Your task to perform on an android device: Search for the new nike air max 270 on Nike.com Image 0: 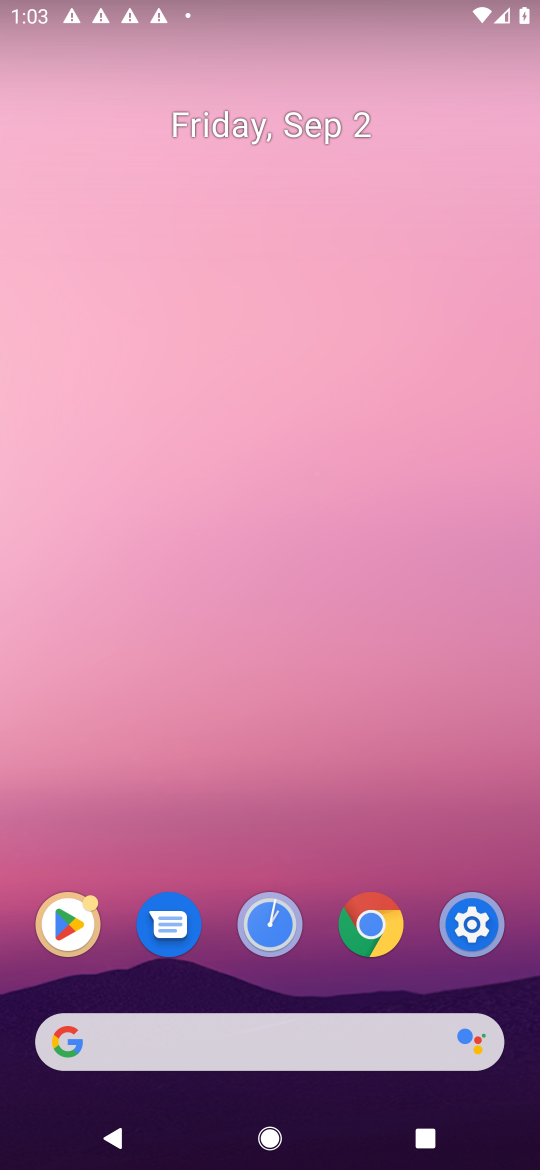
Step 0: click (306, 1043)
Your task to perform on an android device: Search for the new nike air max 270 on Nike.com Image 1: 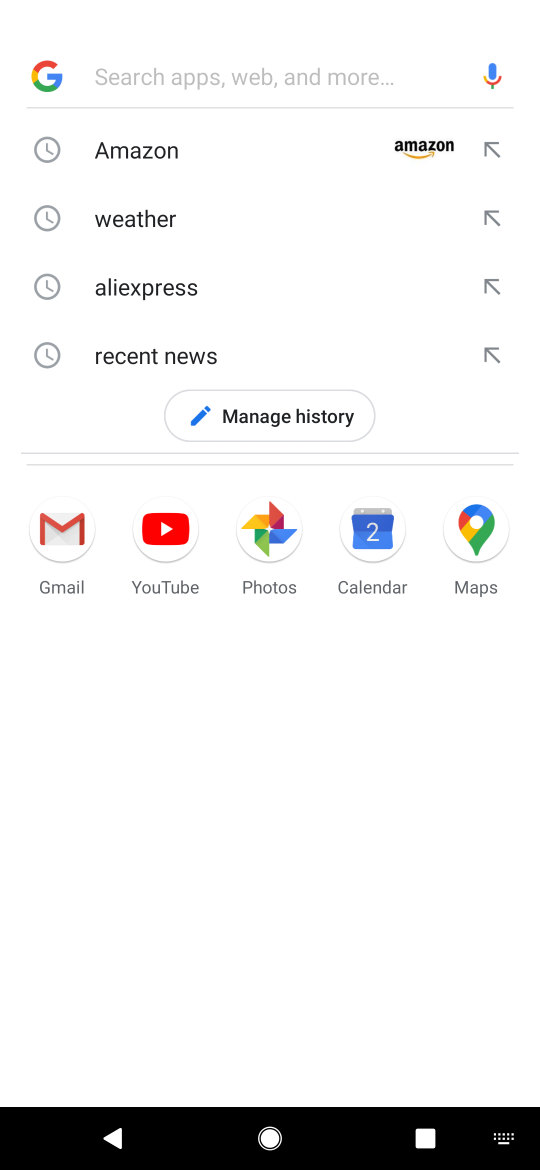
Step 1: type "Nike.com"
Your task to perform on an android device: Search for the new nike air max 270 on Nike.com Image 2: 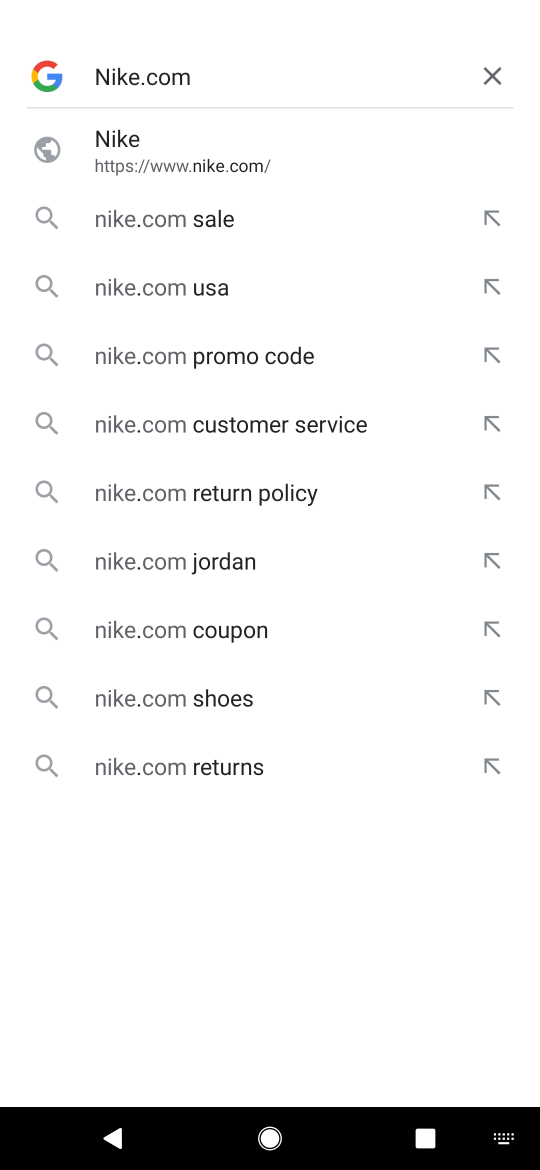
Step 2: type ""
Your task to perform on an android device: Search for the new nike air max 270 on Nike.com Image 3: 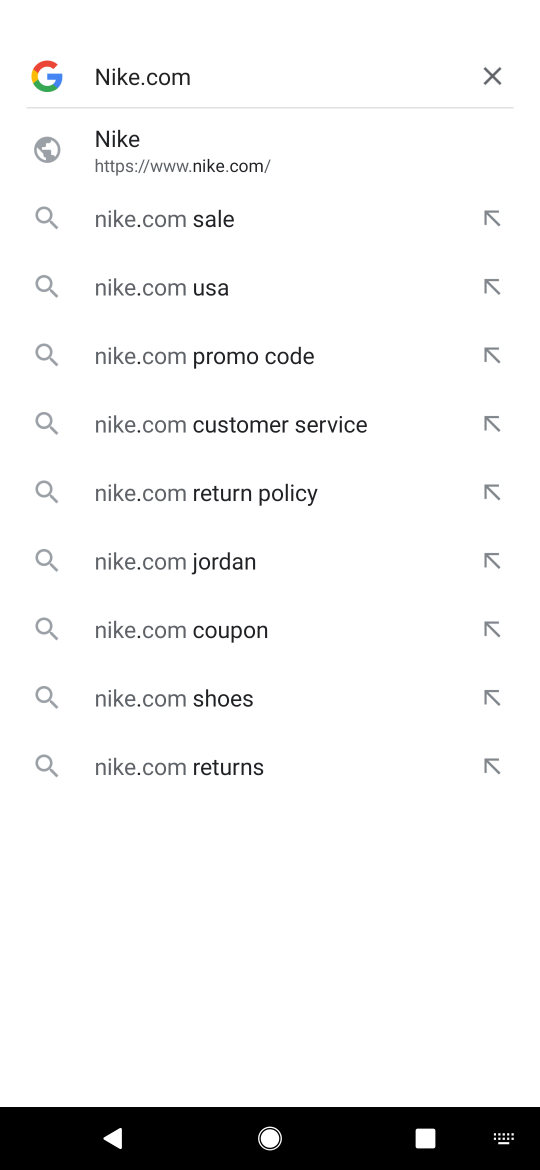
Step 3: click (99, 152)
Your task to perform on an android device: Search for the new nike air max 270 on Nike.com Image 4: 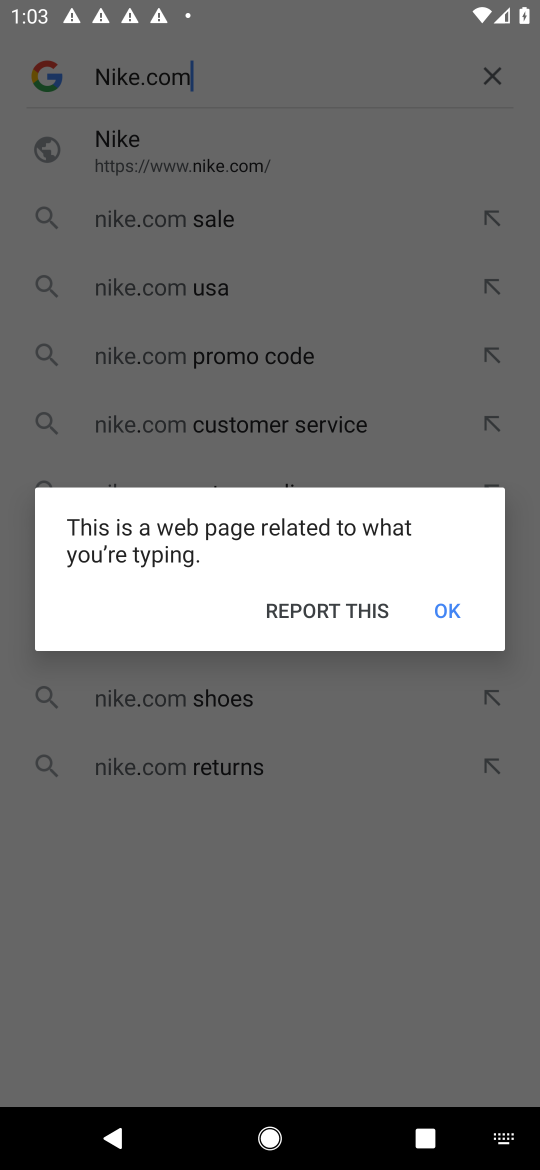
Step 4: click (438, 617)
Your task to perform on an android device: Search for the new nike air max 270 on Nike.com Image 5: 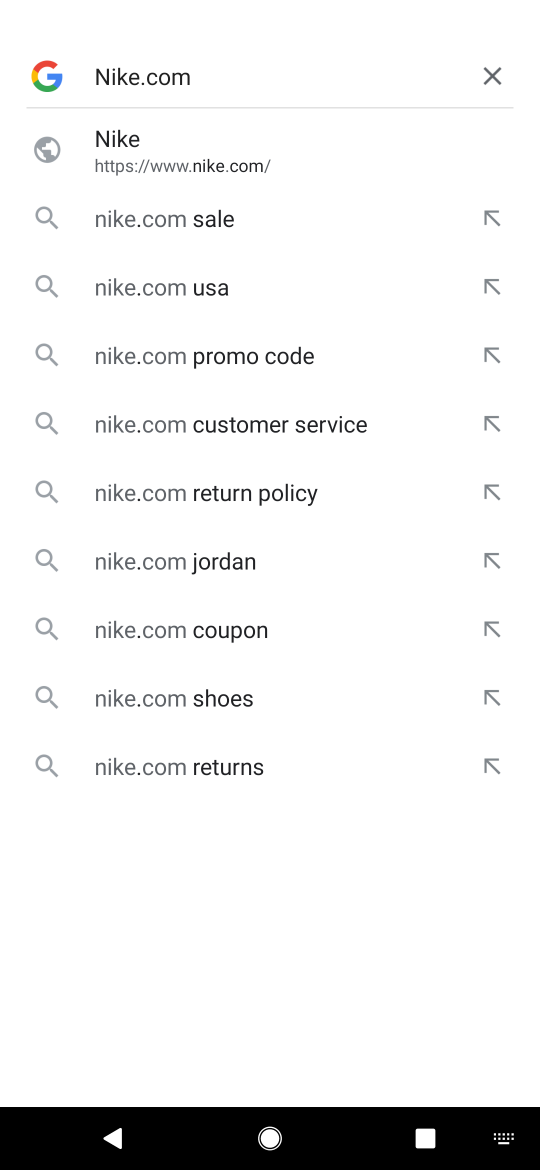
Step 5: click (166, 176)
Your task to perform on an android device: Search for the new nike air max 270 on Nike.com Image 6: 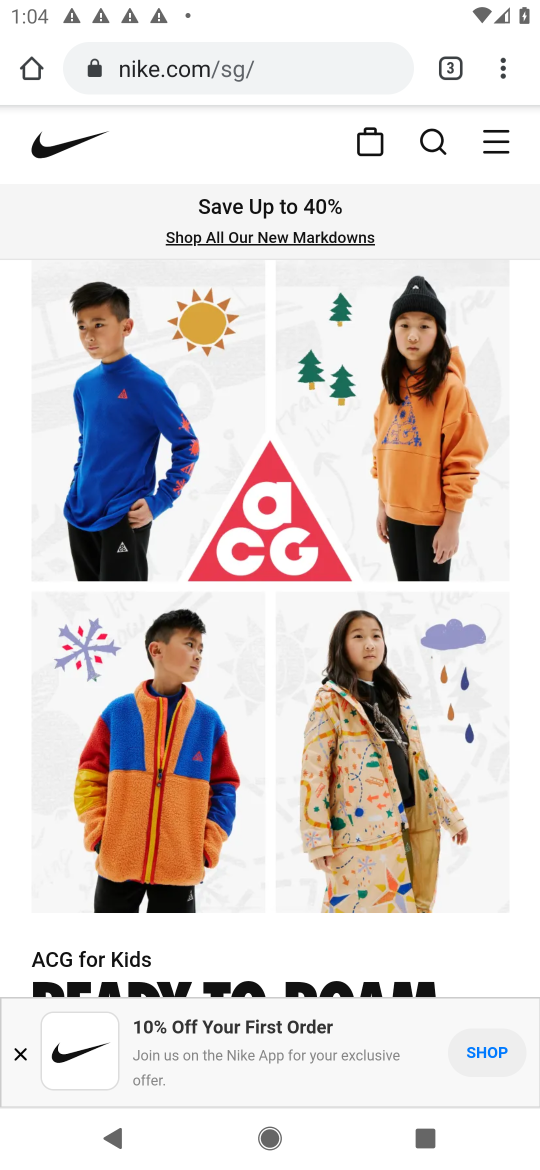
Step 6: click (416, 141)
Your task to perform on an android device: Search for the new nike air max 270 on Nike.com Image 7: 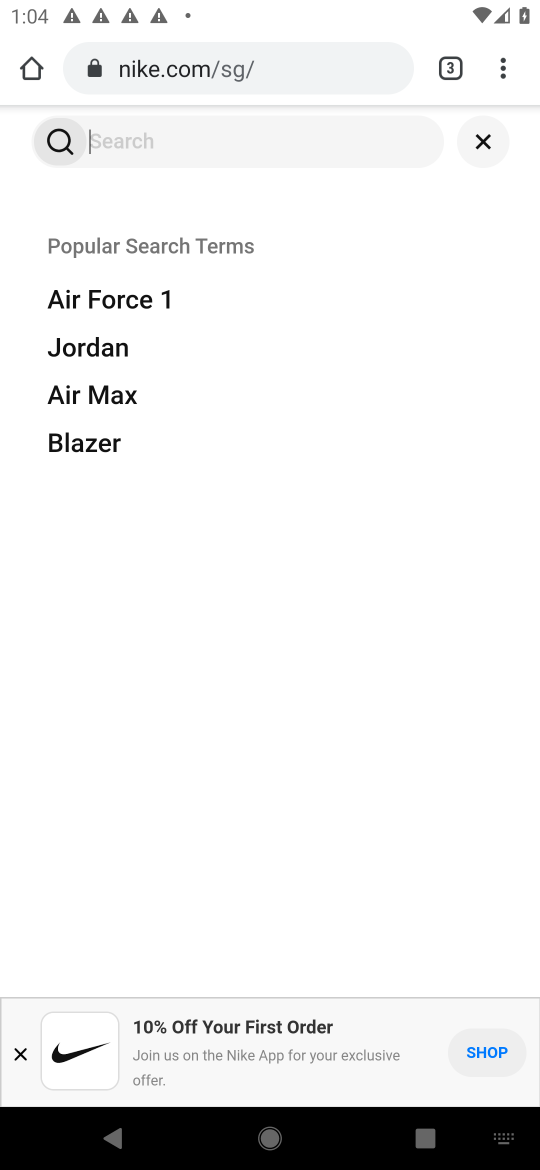
Step 7: type "nike air max 270"
Your task to perform on an android device: Search for the new nike air max 270 on Nike.com Image 8: 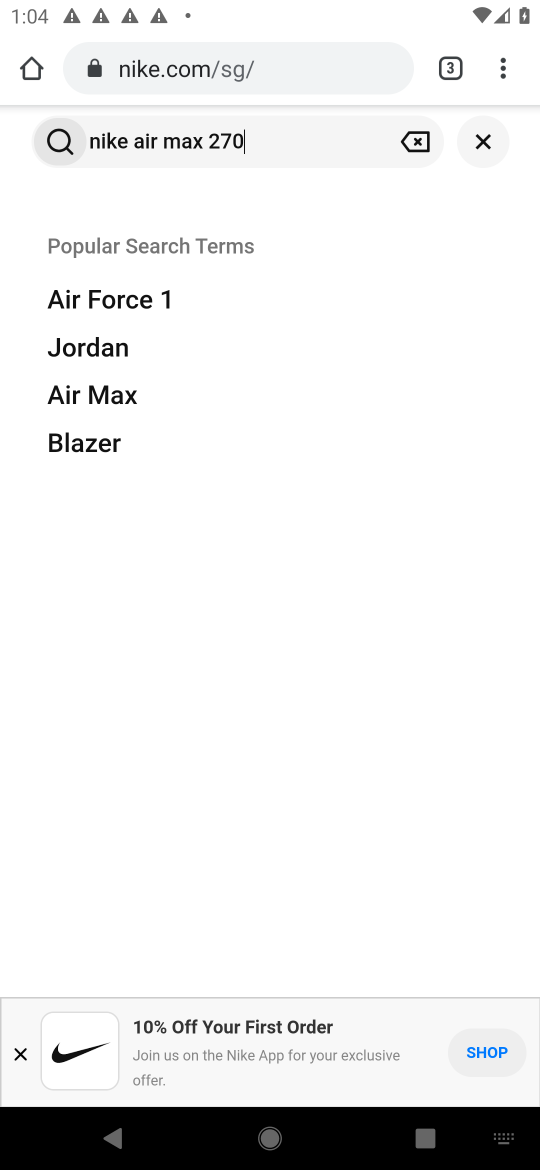
Step 8: type ""
Your task to perform on an android device: Search for the new nike air max 270 on Nike.com Image 9: 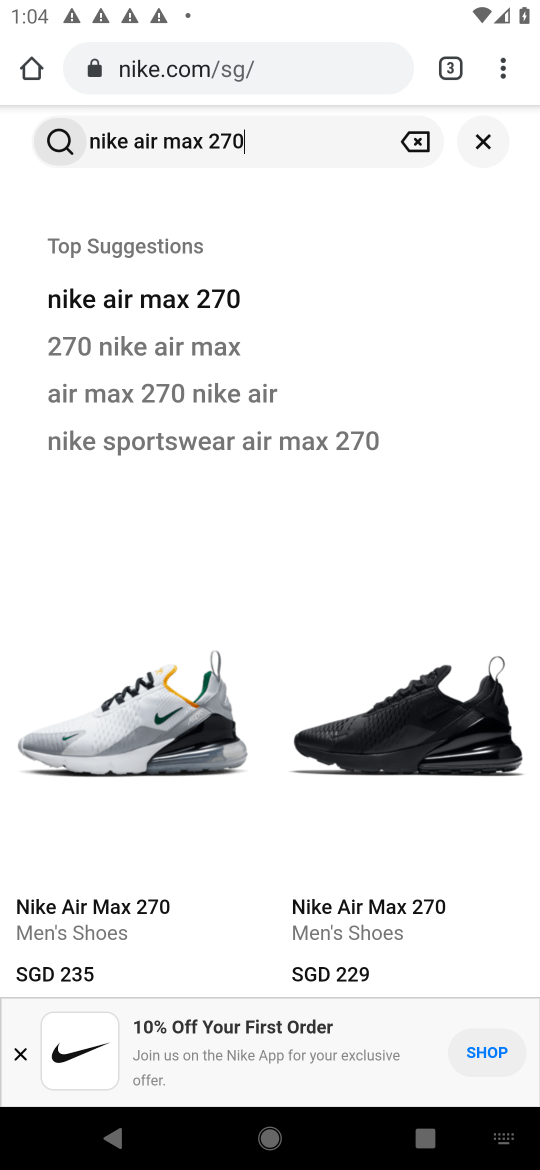
Step 9: click (211, 295)
Your task to perform on an android device: Search for the new nike air max 270 on Nike.com Image 10: 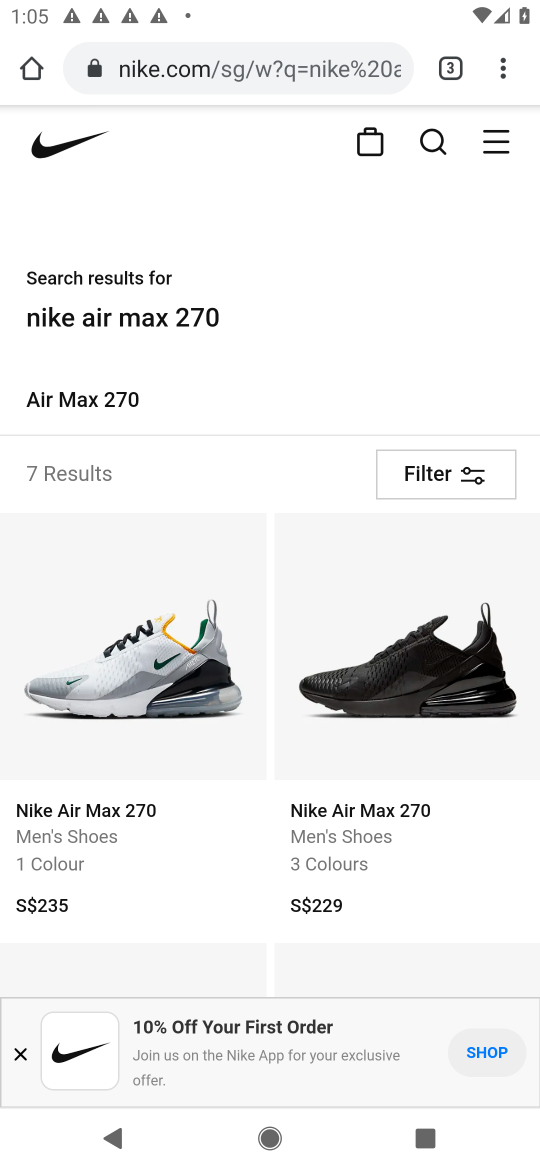
Step 10: click (435, 157)
Your task to perform on an android device: Search for the new nike air max 270 on Nike.com Image 11: 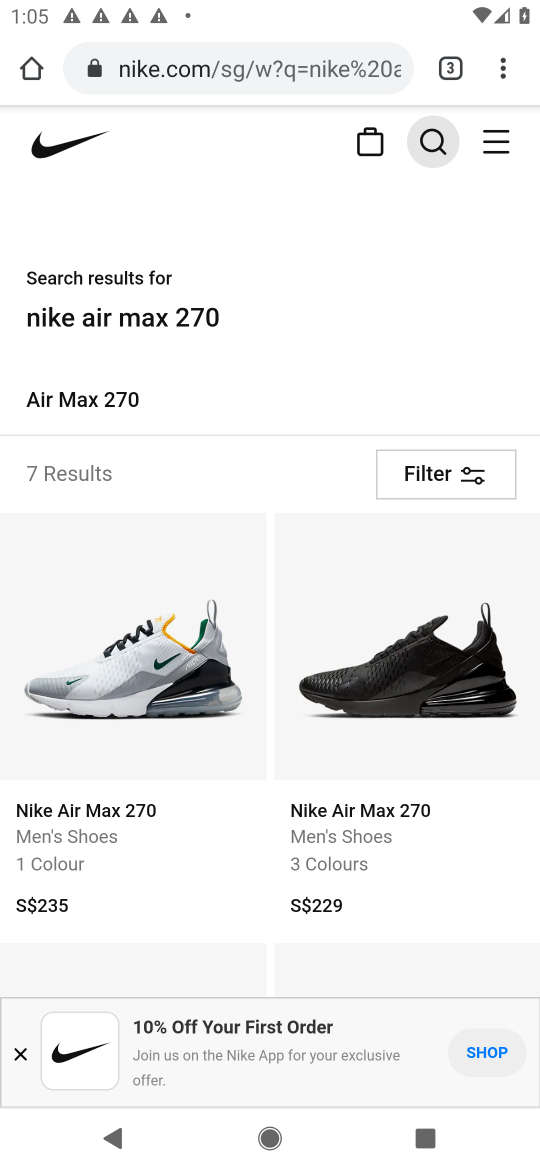
Step 11: task complete